Your task to perform on an android device: What is the news today? Image 0: 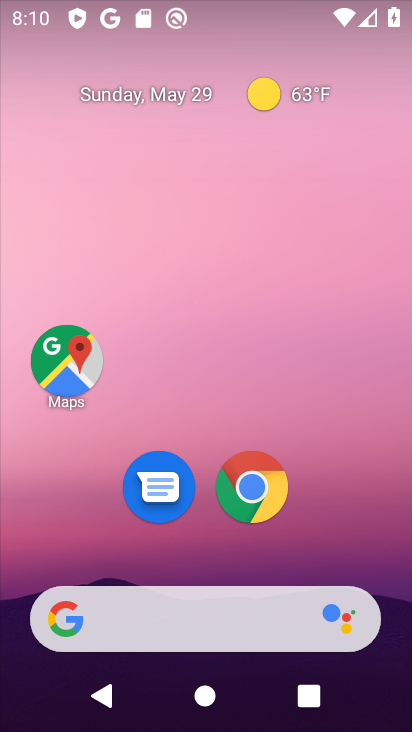
Step 0: drag from (325, 540) to (259, 19)
Your task to perform on an android device: What is the news today? Image 1: 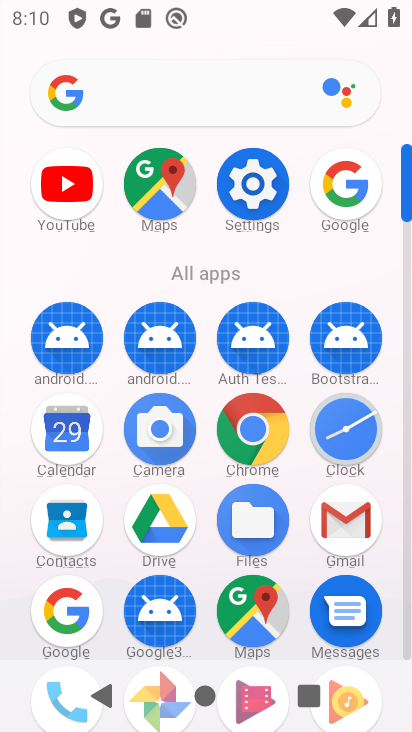
Step 1: click (342, 186)
Your task to perform on an android device: What is the news today? Image 2: 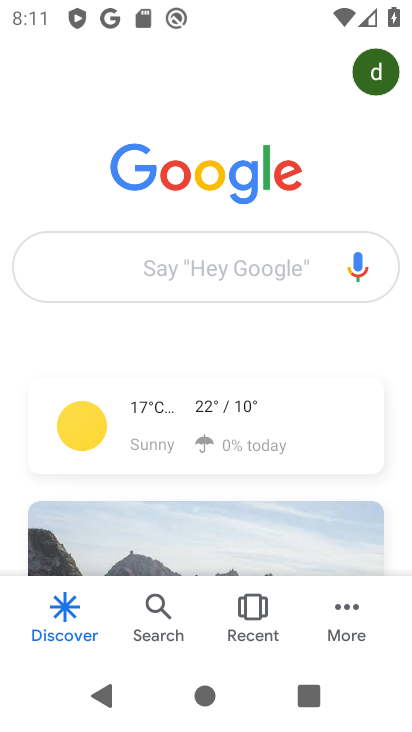
Step 2: click (110, 260)
Your task to perform on an android device: What is the news today? Image 3: 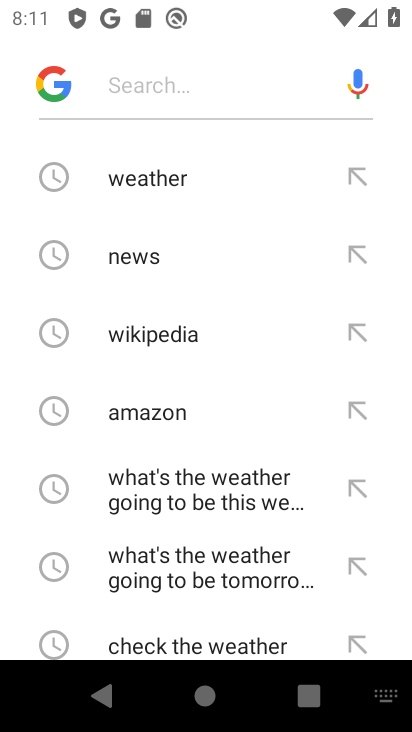
Step 3: click (185, 104)
Your task to perform on an android device: What is the news today? Image 4: 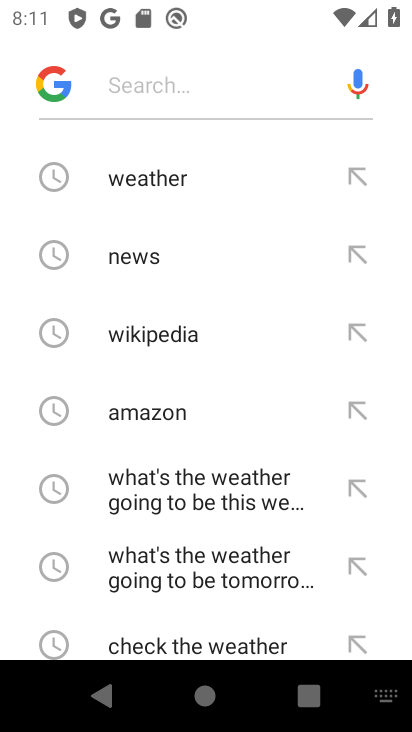
Step 4: type "news today"
Your task to perform on an android device: What is the news today? Image 5: 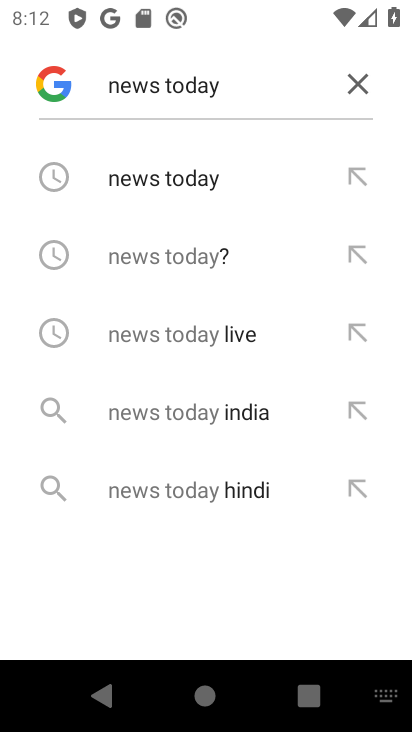
Step 5: click (169, 181)
Your task to perform on an android device: What is the news today? Image 6: 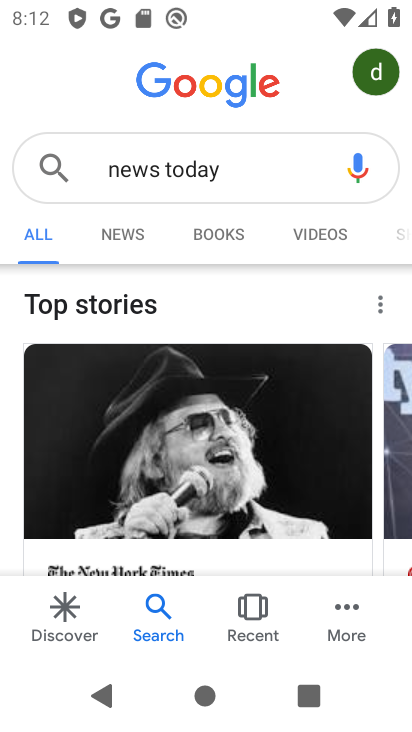
Step 6: task complete